Your task to perform on an android device: Open the Play Movies app and select the watchlist tab. Image 0: 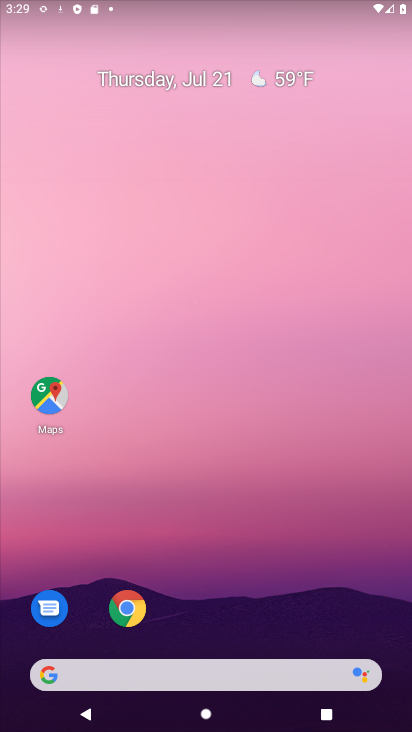
Step 0: drag from (276, 665) to (323, 132)
Your task to perform on an android device: Open the Play Movies app and select the watchlist tab. Image 1: 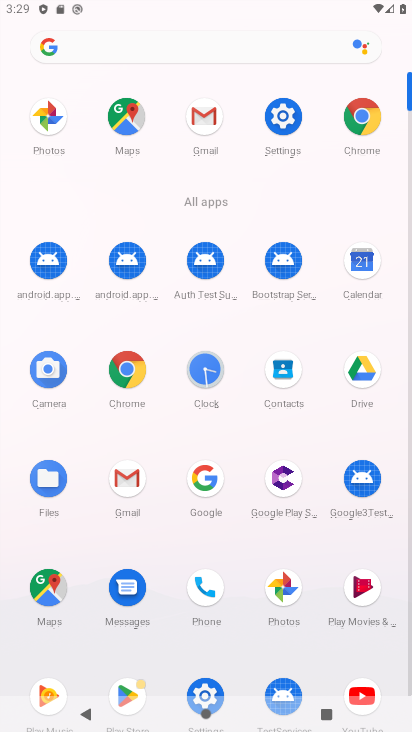
Step 1: drag from (194, 648) to (211, 218)
Your task to perform on an android device: Open the Play Movies app and select the watchlist tab. Image 2: 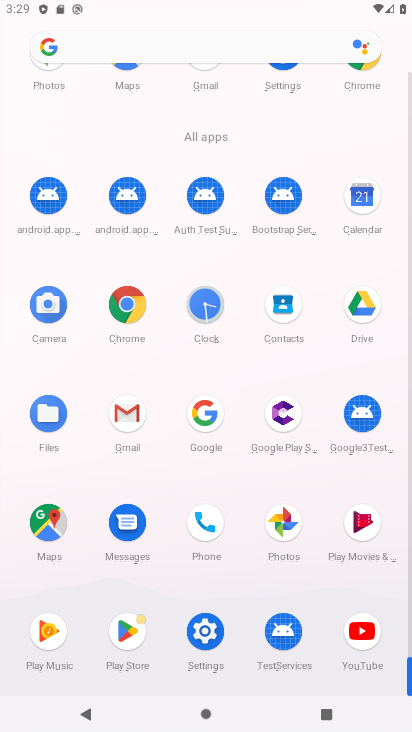
Step 2: click (365, 516)
Your task to perform on an android device: Open the Play Movies app and select the watchlist tab. Image 3: 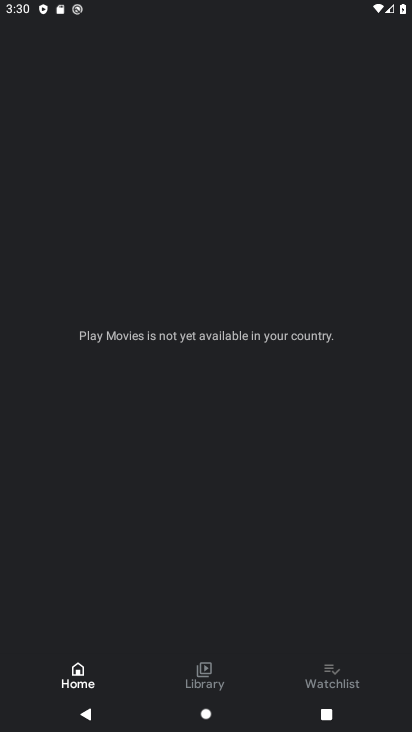
Step 3: click (340, 679)
Your task to perform on an android device: Open the Play Movies app and select the watchlist tab. Image 4: 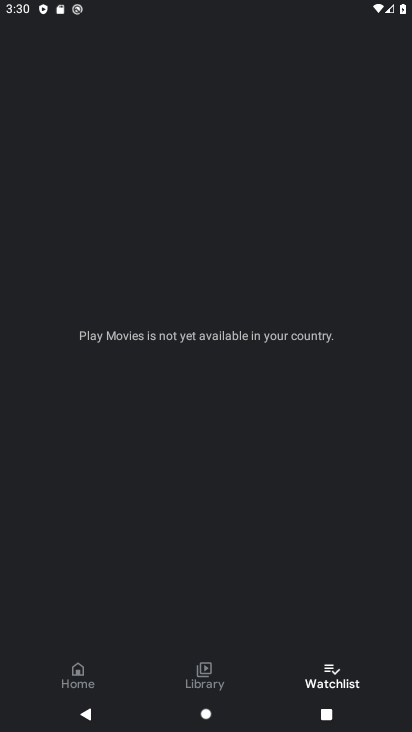
Step 4: task complete